Your task to perform on an android device: Go to notification settings Image 0: 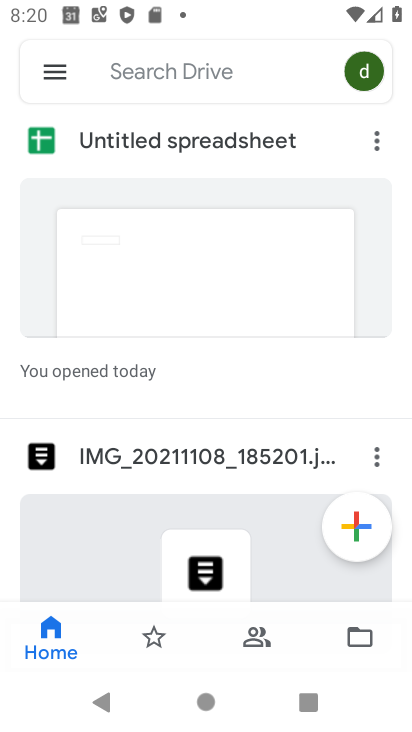
Step 0: press home button
Your task to perform on an android device: Go to notification settings Image 1: 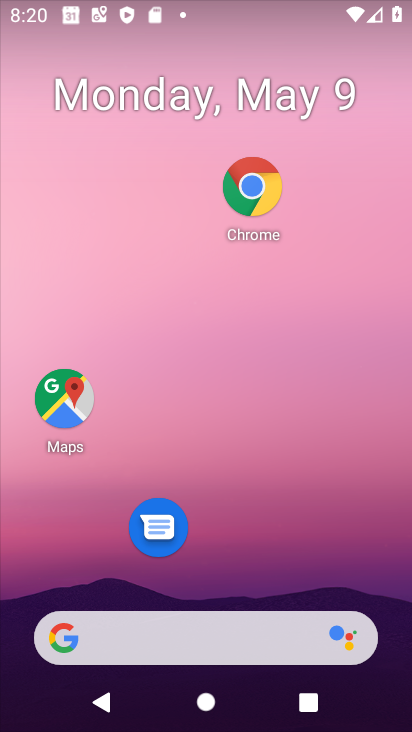
Step 1: drag from (205, 583) to (203, 123)
Your task to perform on an android device: Go to notification settings Image 2: 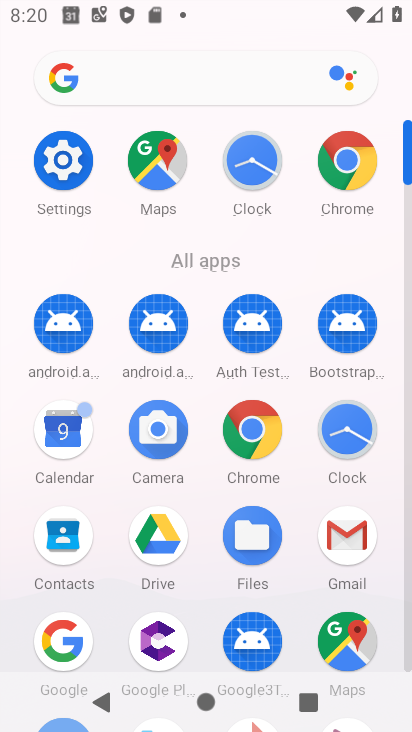
Step 2: click (60, 161)
Your task to perform on an android device: Go to notification settings Image 3: 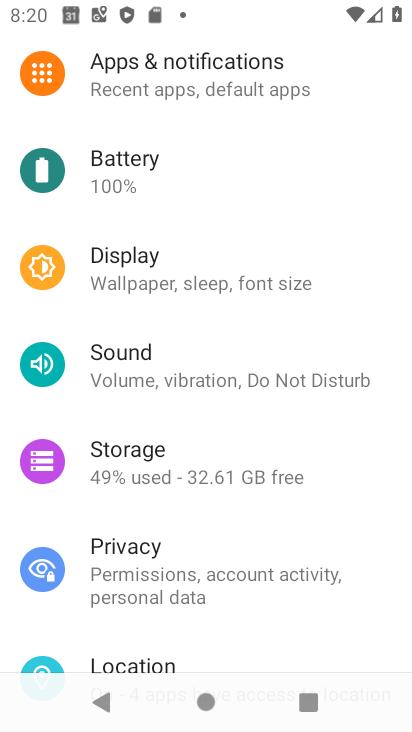
Step 3: click (169, 85)
Your task to perform on an android device: Go to notification settings Image 4: 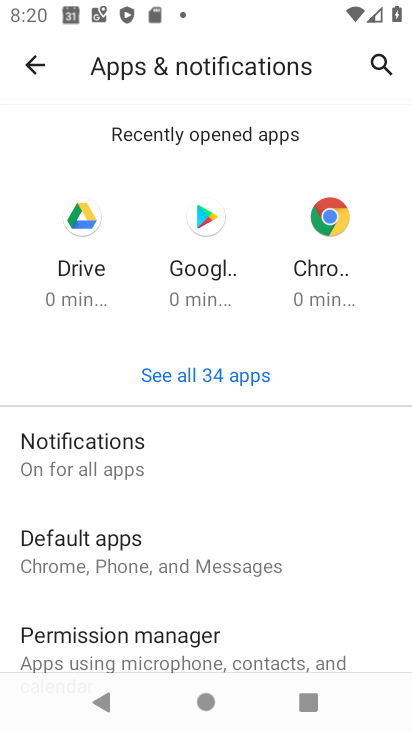
Step 4: click (155, 452)
Your task to perform on an android device: Go to notification settings Image 5: 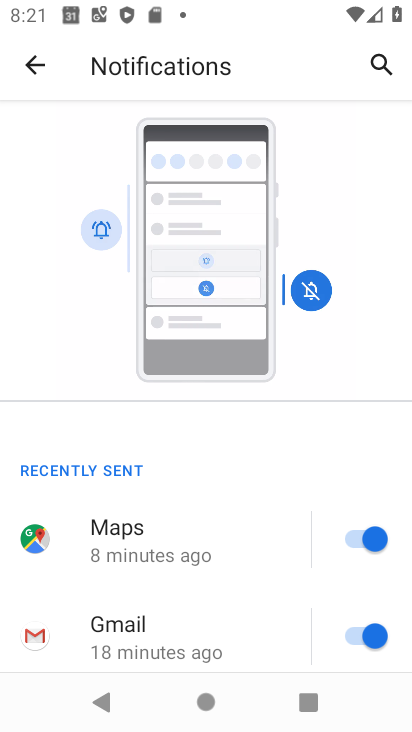
Step 5: drag from (236, 607) to (212, 263)
Your task to perform on an android device: Go to notification settings Image 6: 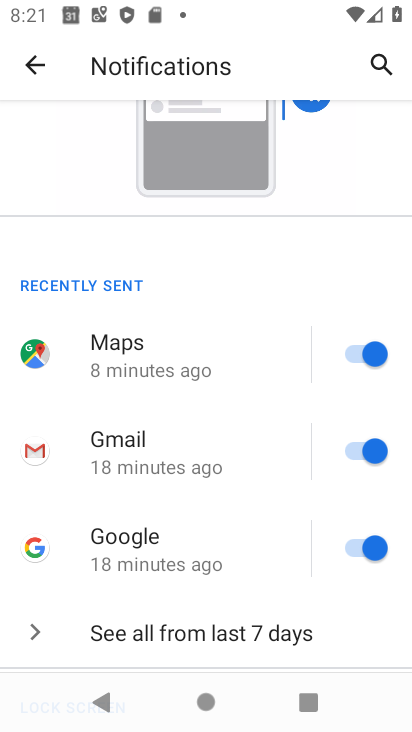
Step 6: drag from (220, 534) to (209, 327)
Your task to perform on an android device: Go to notification settings Image 7: 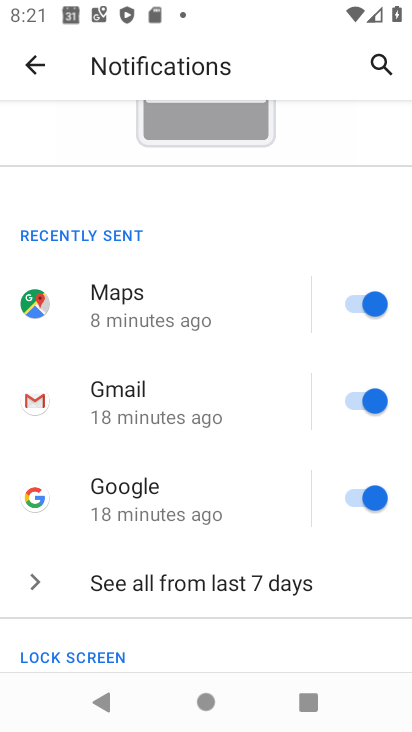
Step 7: click (361, 296)
Your task to perform on an android device: Go to notification settings Image 8: 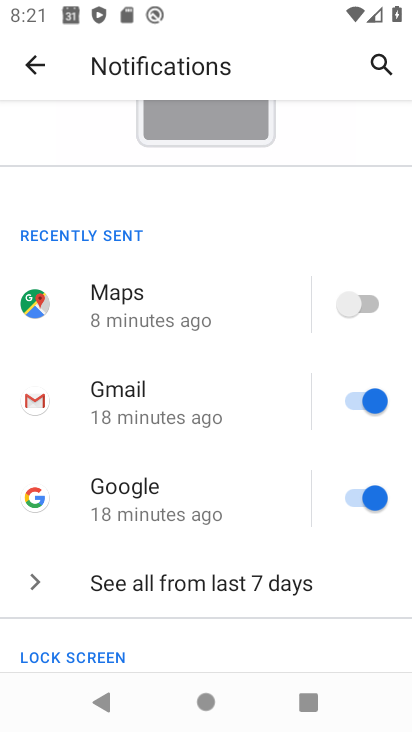
Step 8: click (360, 399)
Your task to perform on an android device: Go to notification settings Image 9: 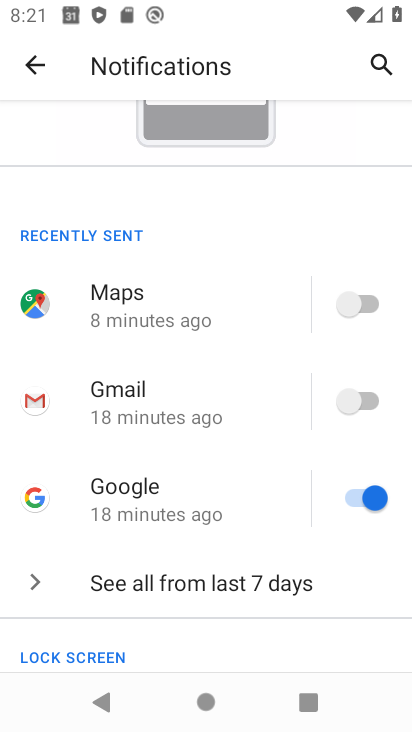
Step 9: click (356, 489)
Your task to perform on an android device: Go to notification settings Image 10: 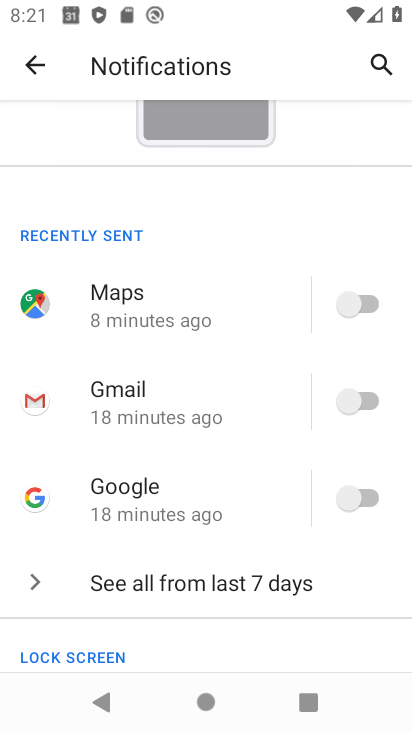
Step 10: drag from (213, 623) to (201, 188)
Your task to perform on an android device: Go to notification settings Image 11: 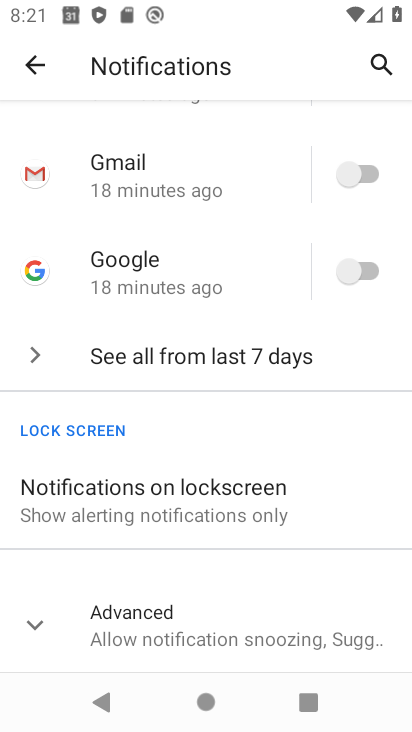
Step 11: click (297, 496)
Your task to perform on an android device: Go to notification settings Image 12: 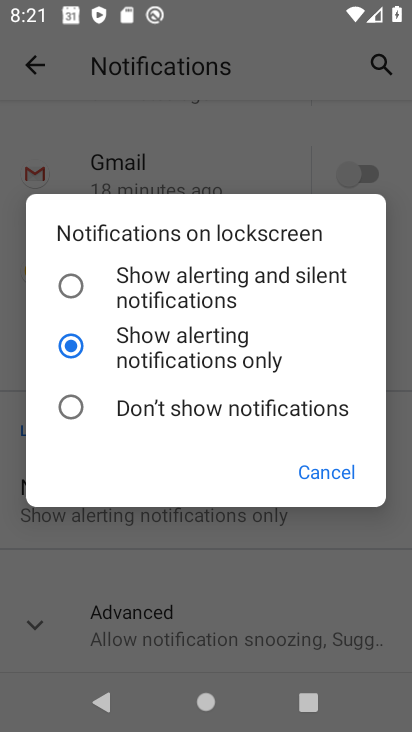
Step 12: click (72, 282)
Your task to perform on an android device: Go to notification settings Image 13: 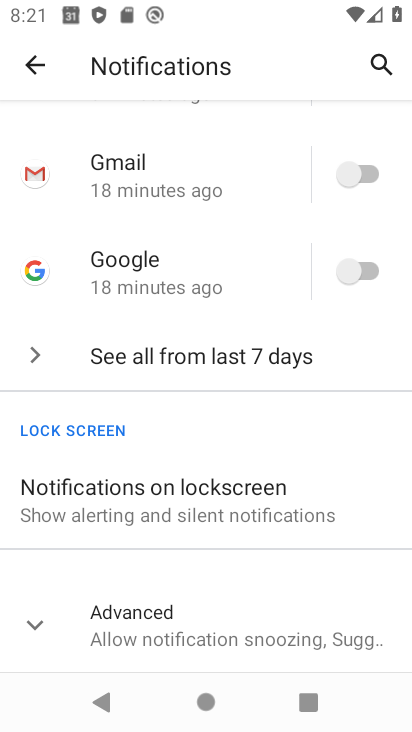
Step 13: task complete